Your task to perform on an android device: Show me popular videos on Youtube Image 0: 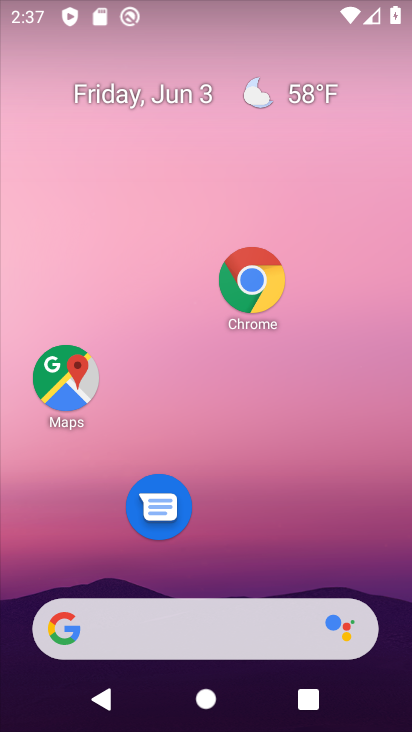
Step 0: drag from (261, 531) to (242, 51)
Your task to perform on an android device: Show me popular videos on Youtube Image 1: 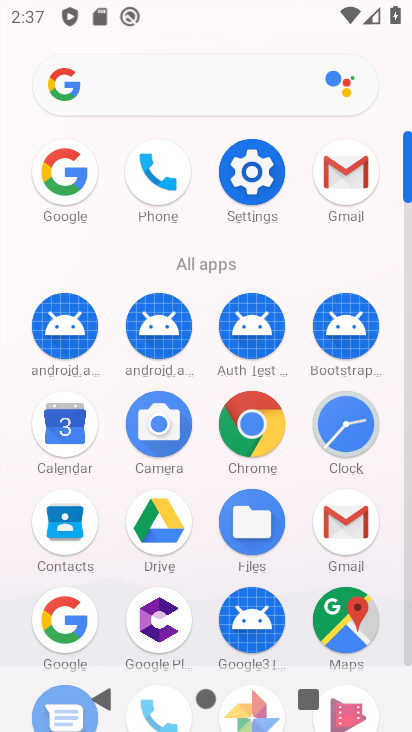
Step 1: drag from (287, 612) to (246, 140)
Your task to perform on an android device: Show me popular videos on Youtube Image 2: 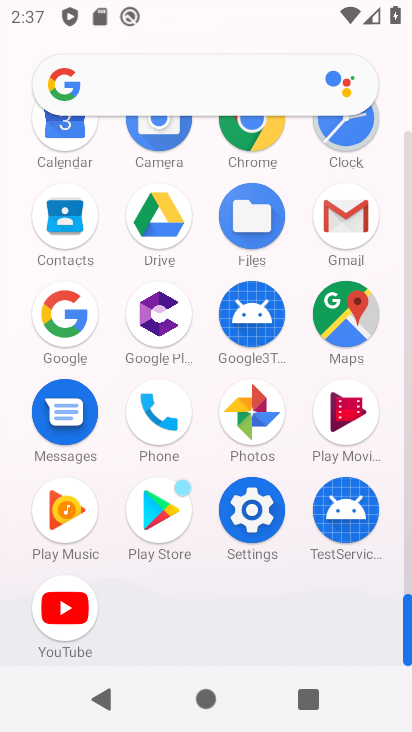
Step 2: click (67, 604)
Your task to perform on an android device: Show me popular videos on Youtube Image 3: 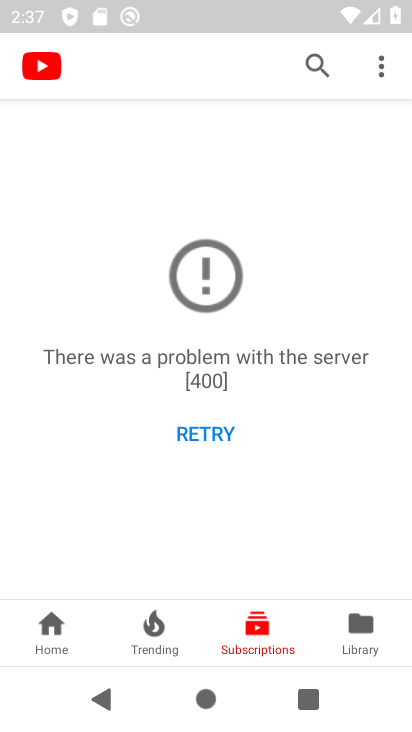
Step 3: click (58, 633)
Your task to perform on an android device: Show me popular videos on Youtube Image 4: 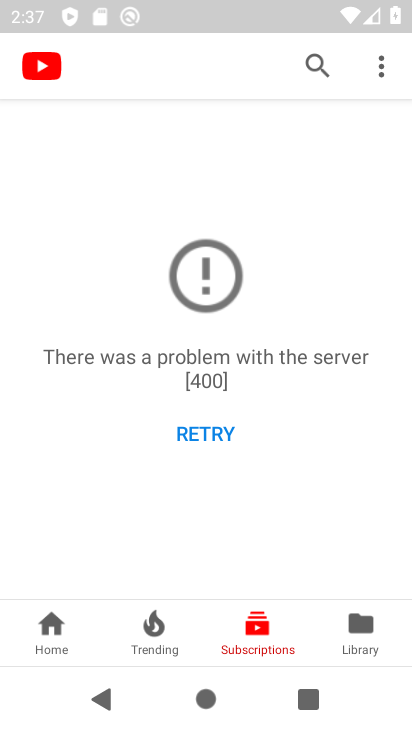
Step 4: click (66, 651)
Your task to perform on an android device: Show me popular videos on Youtube Image 5: 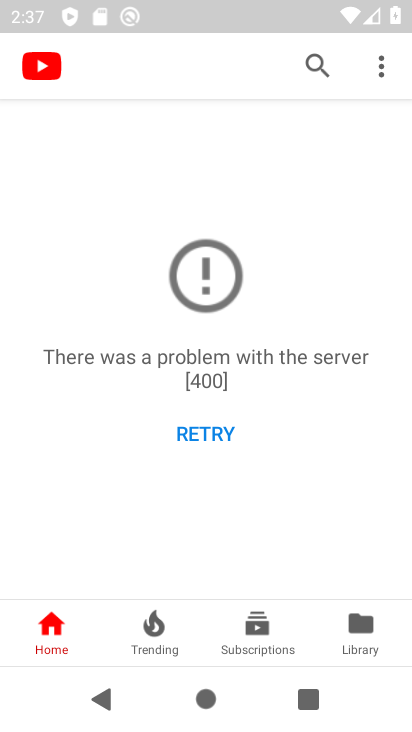
Step 5: click (184, 441)
Your task to perform on an android device: Show me popular videos on Youtube Image 6: 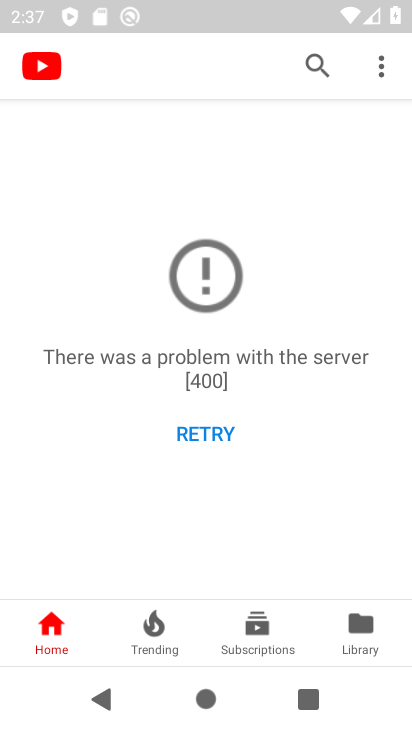
Step 6: click (184, 441)
Your task to perform on an android device: Show me popular videos on Youtube Image 7: 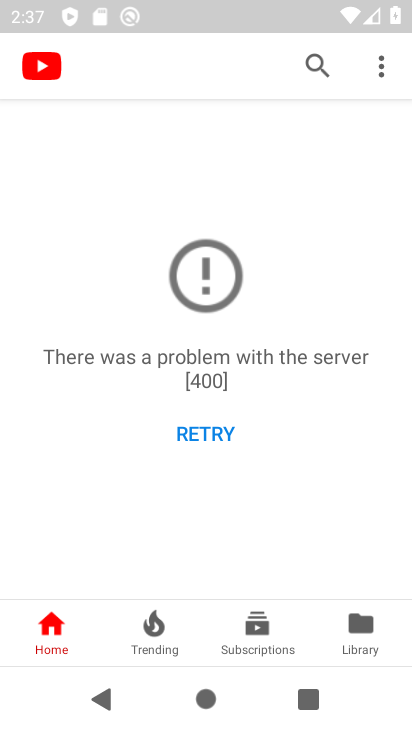
Step 7: click (184, 441)
Your task to perform on an android device: Show me popular videos on Youtube Image 8: 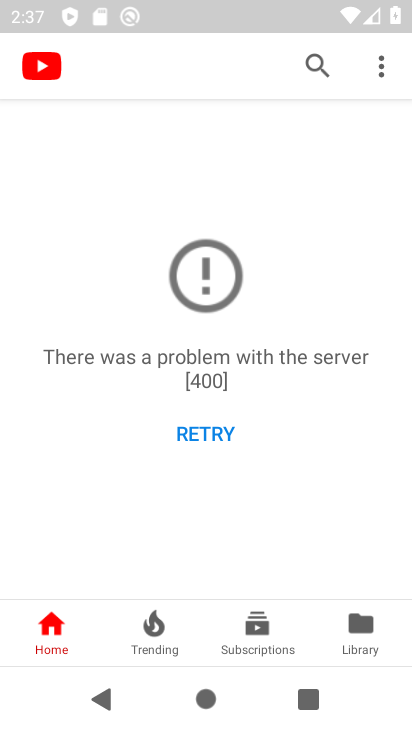
Step 8: task complete